Your task to perform on an android device: Go to settings Image 0: 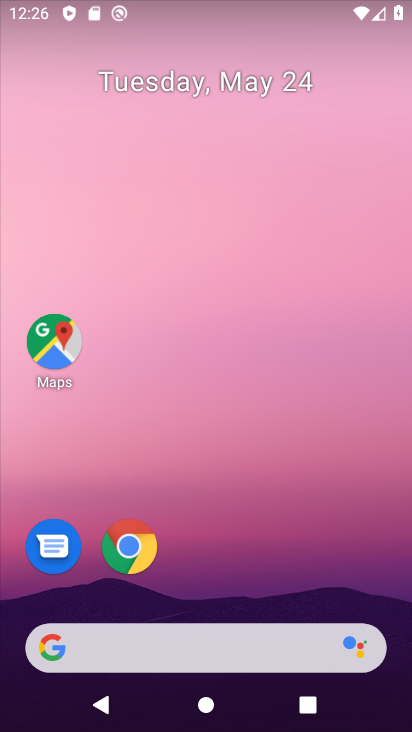
Step 0: drag from (229, 604) to (212, 5)
Your task to perform on an android device: Go to settings Image 1: 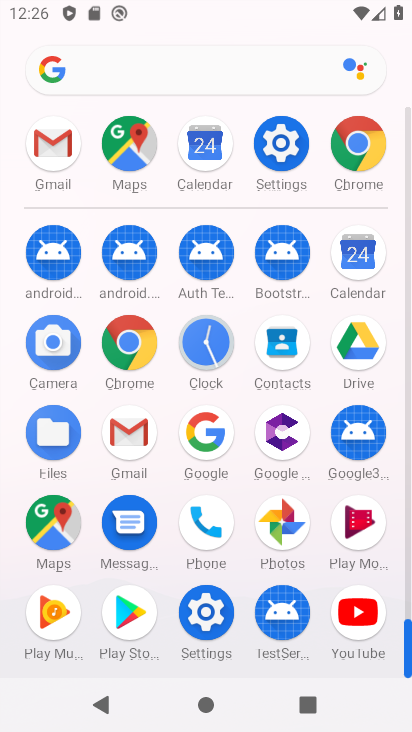
Step 1: click (282, 158)
Your task to perform on an android device: Go to settings Image 2: 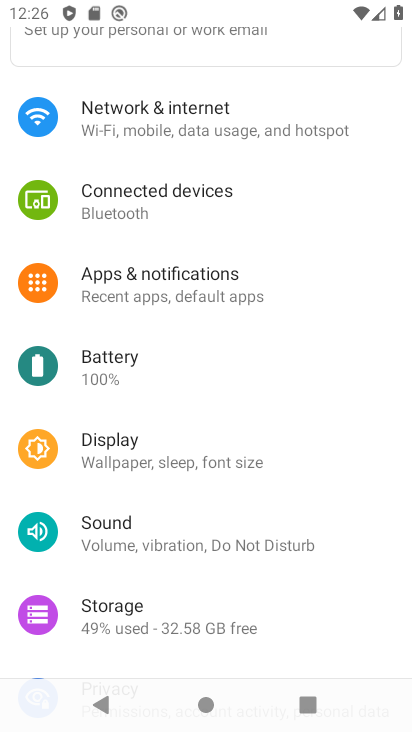
Step 2: task complete